Your task to perform on an android device: change the upload size in google photos Image 0: 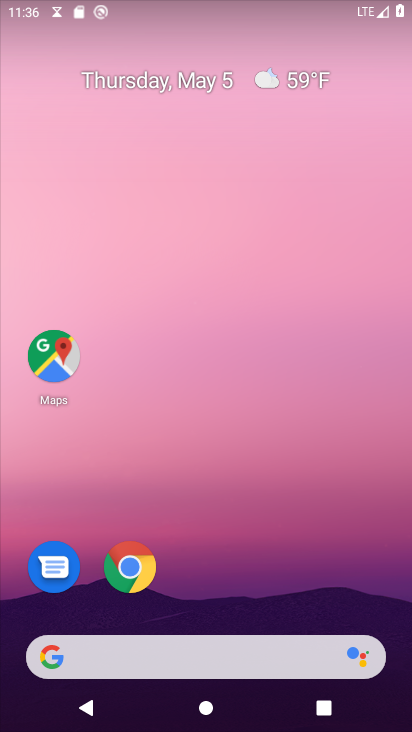
Step 0: drag from (354, 605) to (302, 20)
Your task to perform on an android device: change the upload size in google photos Image 1: 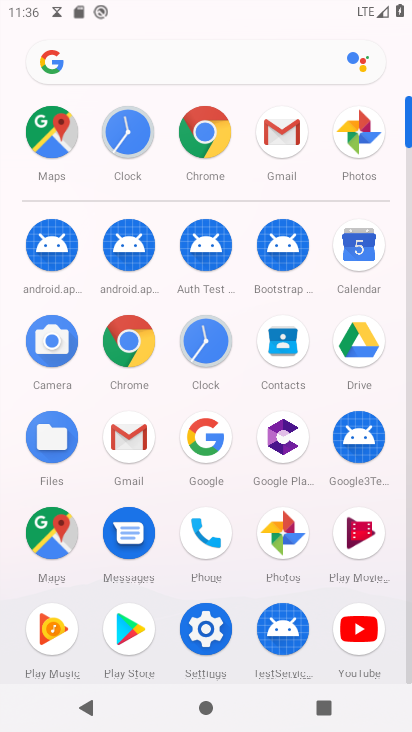
Step 1: click (366, 134)
Your task to perform on an android device: change the upload size in google photos Image 2: 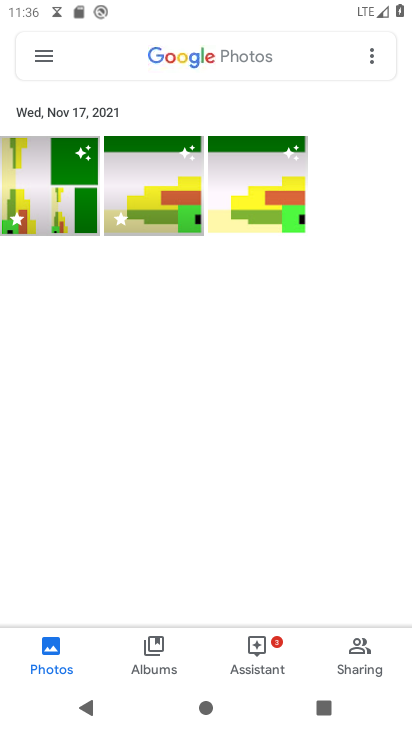
Step 2: click (40, 62)
Your task to perform on an android device: change the upload size in google photos Image 3: 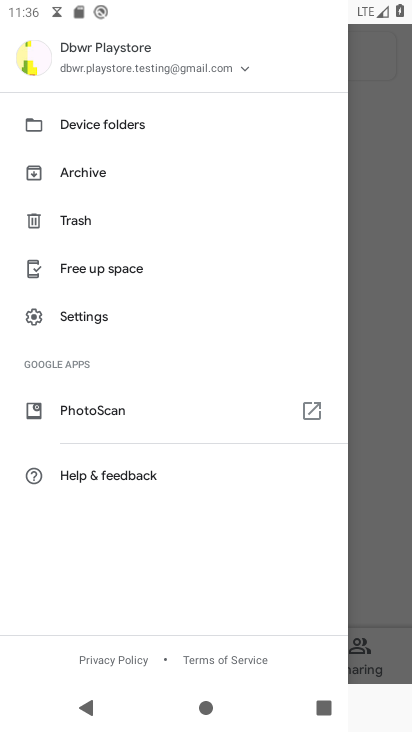
Step 3: click (97, 317)
Your task to perform on an android device: change the upload size in google photos Image 4: 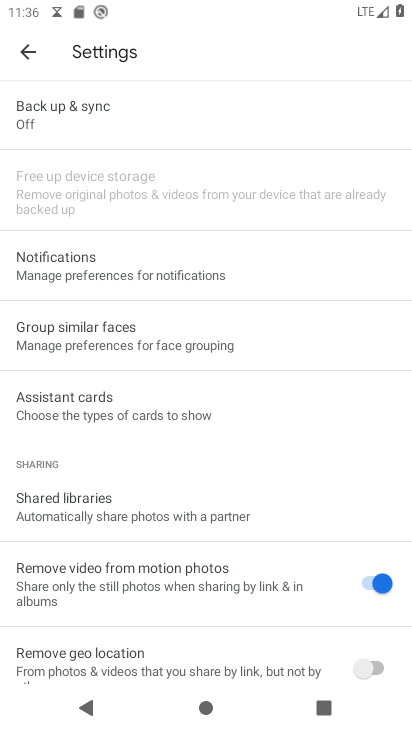
Step 4: click (70, 110)
Your task to perform on an android device: change the upload size in google photos Image 5: 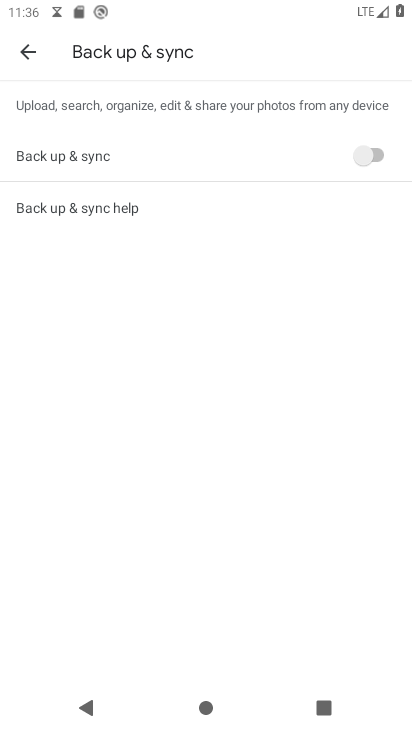
Step 5: click (361, 161)
Your task to perform on an android device: change the upload size in google photos Image 6: 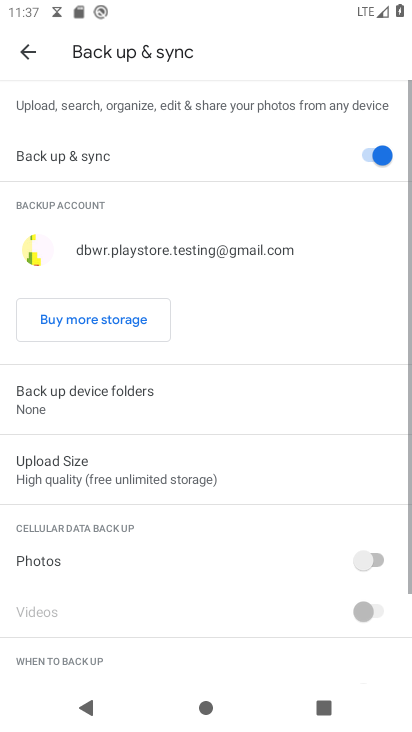
Step 6: click (64, 474)
Your task to perform on an android device: change the upload size in google photos Image 7: 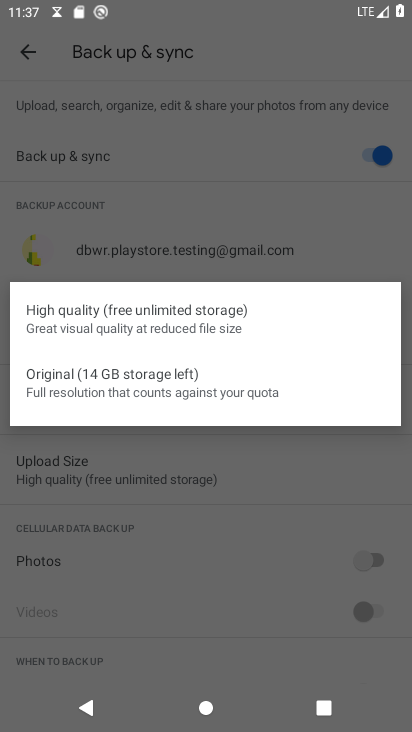
Step 7: click (76, 385)
Your task to perform on an android device: change the upload size in google photos Image 8: 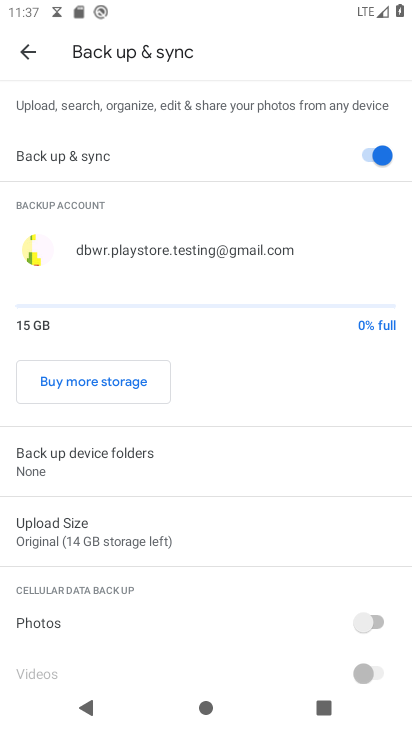
Step 8: task complete